Your task to perform on an android device: Open Google Image 0: 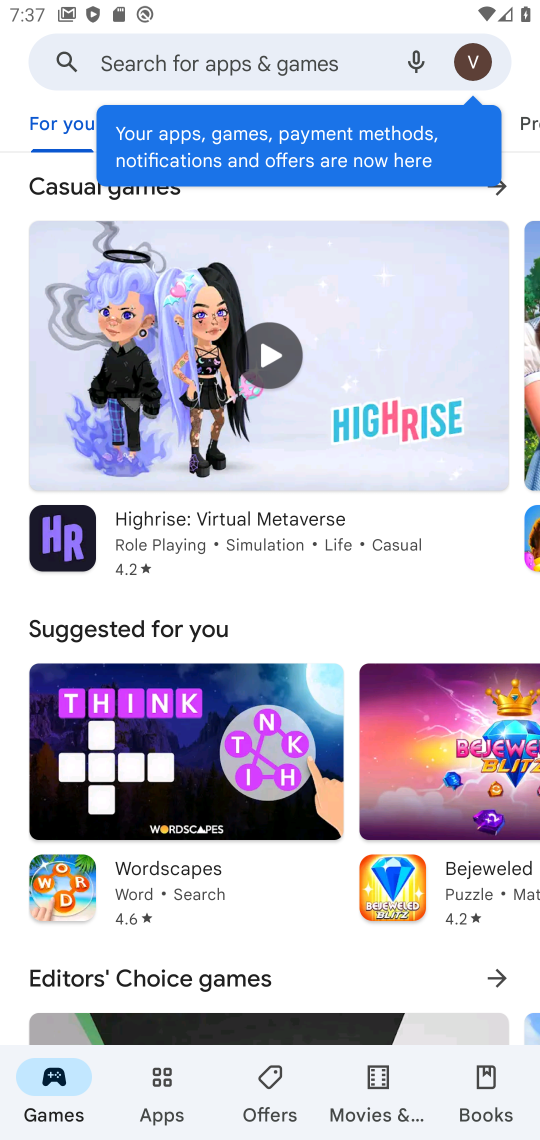
Step 0: press home button
Your task to perform on an android device: Open Google Image 1: 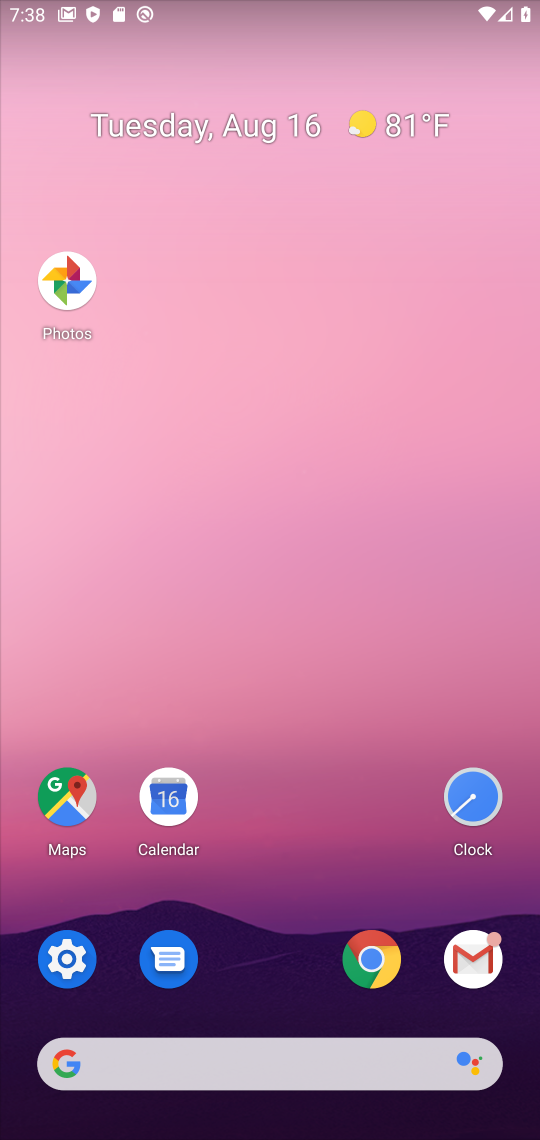
Step 1: click (69, 1064)
Your task to perform on an android device: Open Google Image 2: 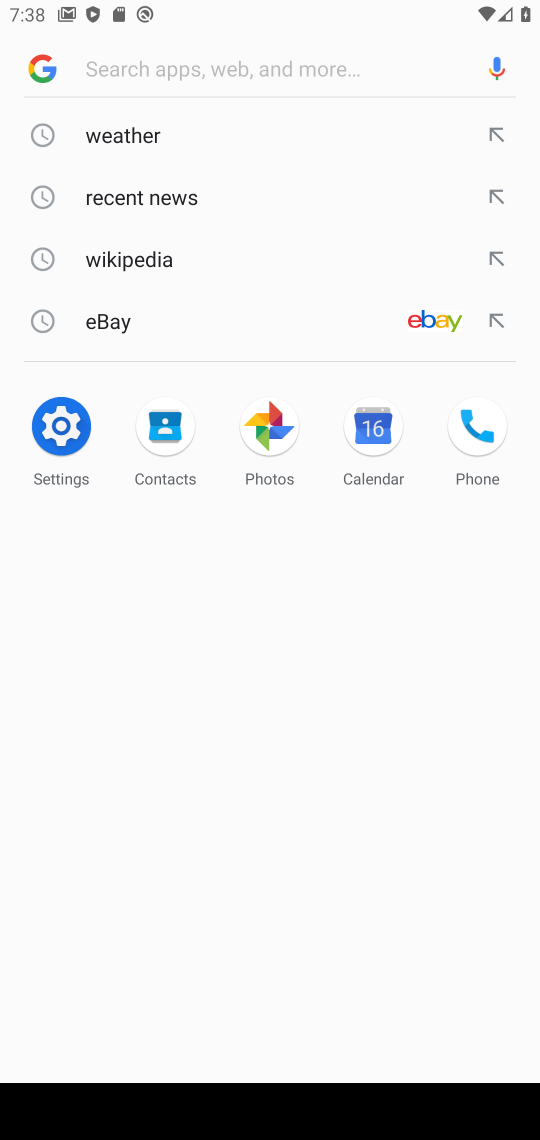
Step 2: click (25, 71)
Your task to perform on an android device: Open Google Image 3: 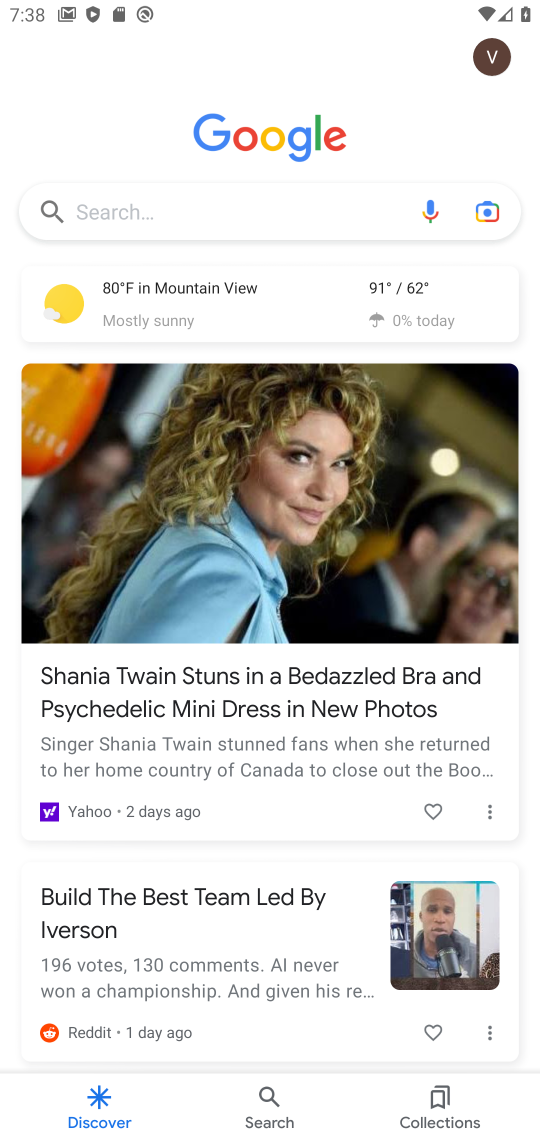
Step 3: task complete